Your task to perform on an android device: Go to calendar. Show me events next week Image 0: 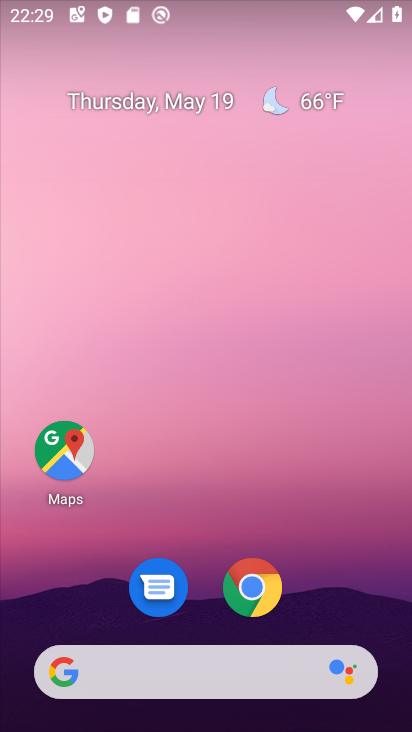
Step 0: drag from (231, 695) to (292, 283)
Your task to perform on an android device: Go to calendar. Show me events next week Image 1: 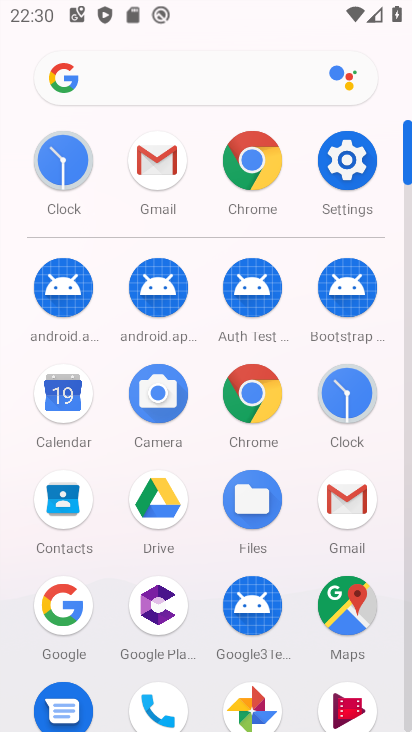
Step 1: click (49, 407)
Your task to perform on an android device: Go to calendar. Show me events next week Image 2: 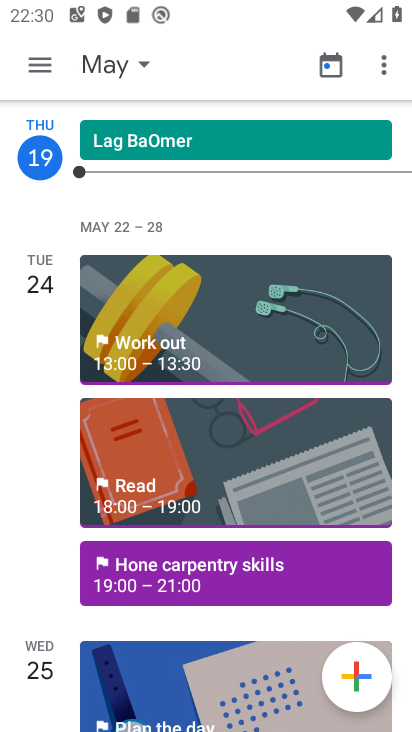
Step 2: click (36, 51)
Your task to perform on an android device: Go to calendar. Show me events next week Image 3: 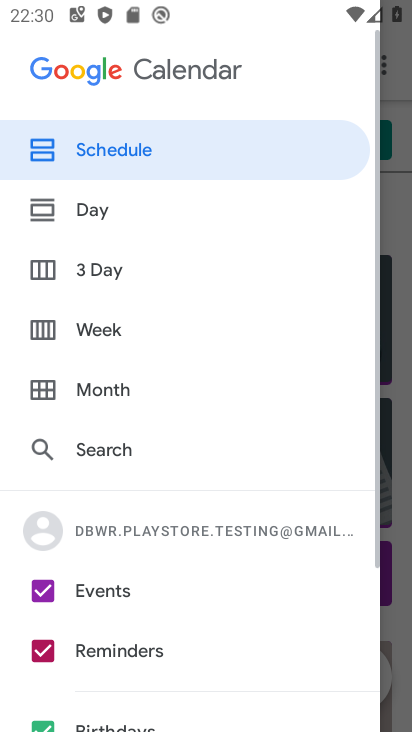
Step 3: click (98, 336)
Your task to perform on an android device: Go to calendar. Show me events next week Image 4: 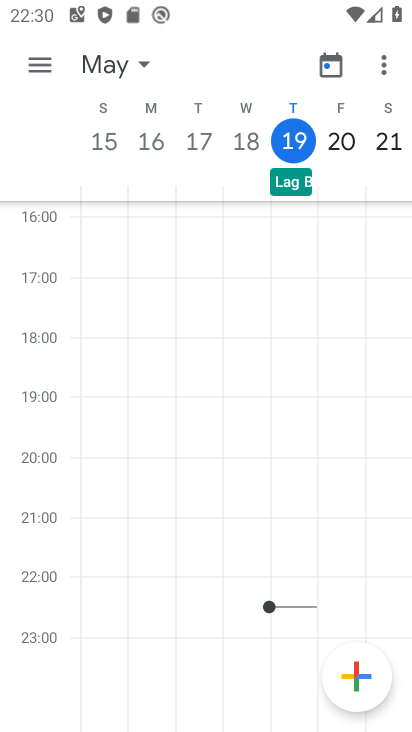
Step 4: task complete